Your task to perform on an android device: Open settings Image 0: 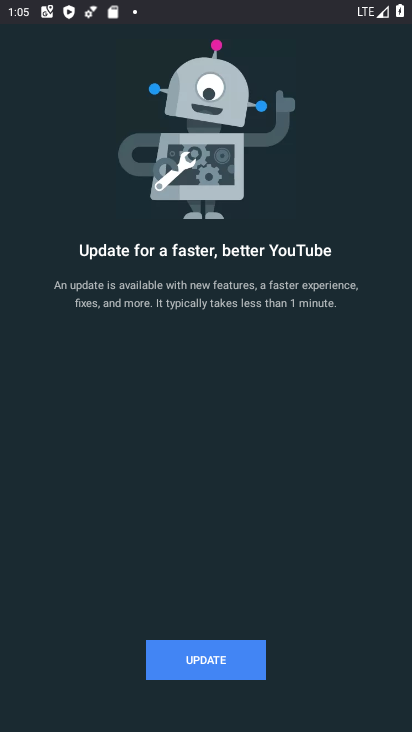
Step 0: press home button
Your task to perform on an android device: Open settings Image 1: 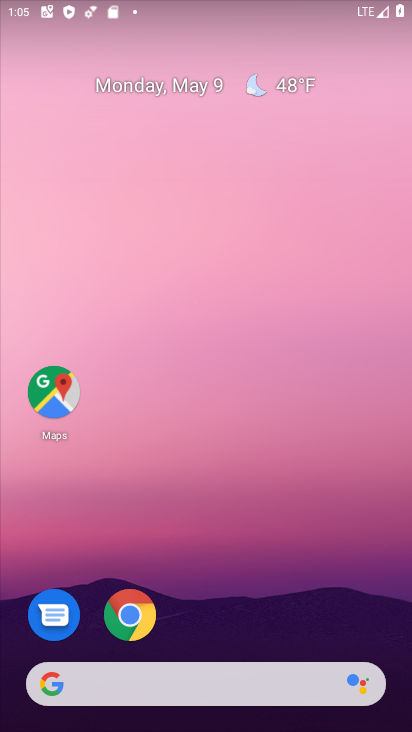
Step 1: drag from (380, 638) to (316, 25)
Your task to perform on an android device: Open settings Image 2: 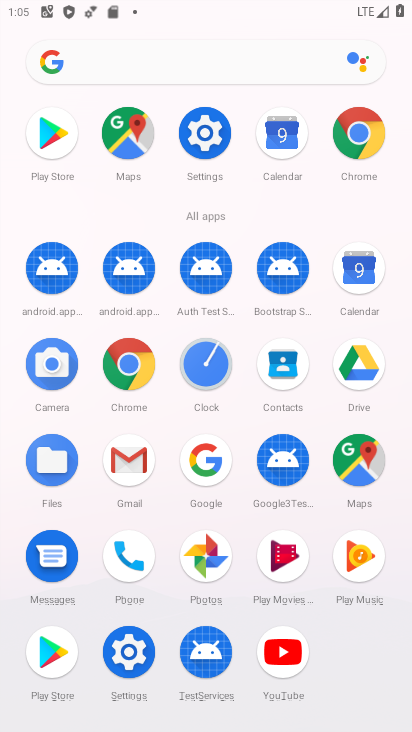
Step 2: click (125, 650)
Your task to perform on an android device: Open settings Image 3: 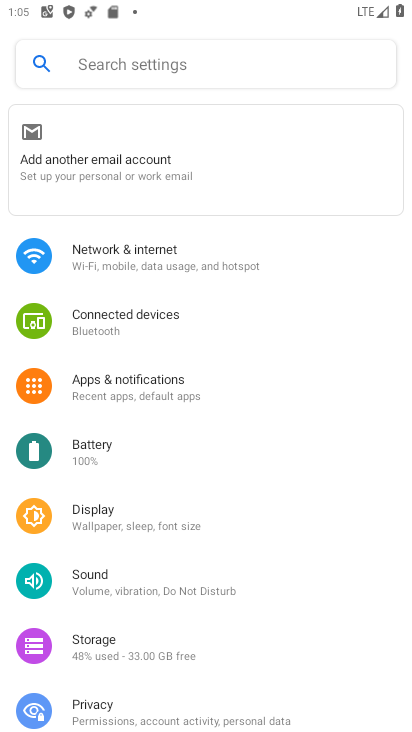
Step 3: task complete